Your task to perform on an android device: Do I have any events today? Image 0: 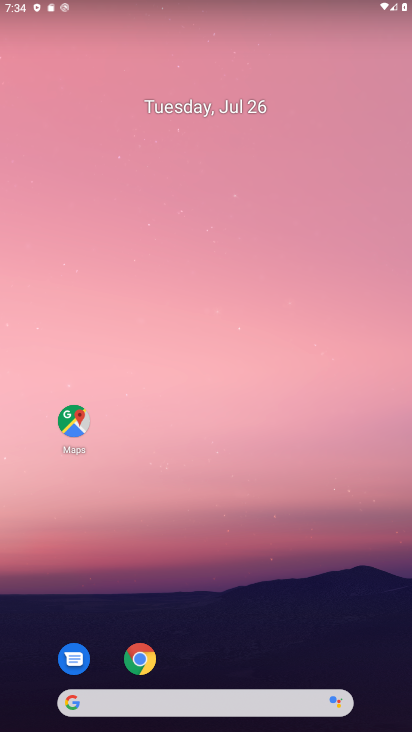
Step 0: drag from (217, 674) to (114, 71)
Your task to perform on an android device: Do I have any events today? Image 1: 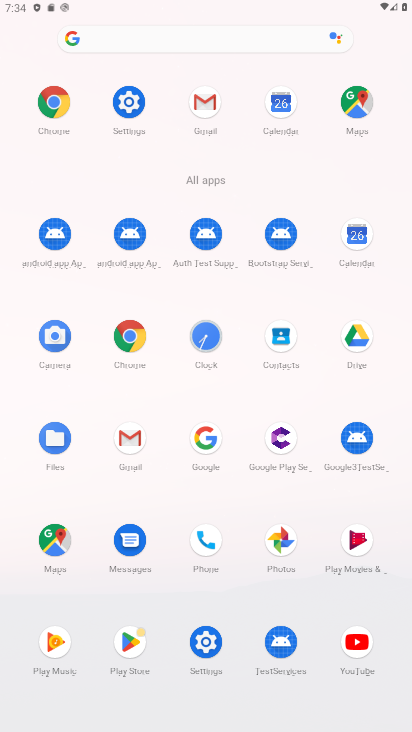
Step 1: click (351, 239)
Your task to perform on an android device: Do I have any events today? Image 2: 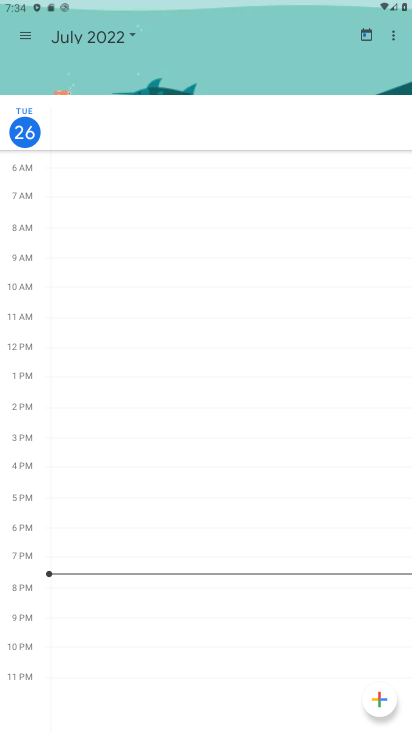
Step 2: click (25, 125)
Your task to perform on an android device: Do I have any events today? Image 3: 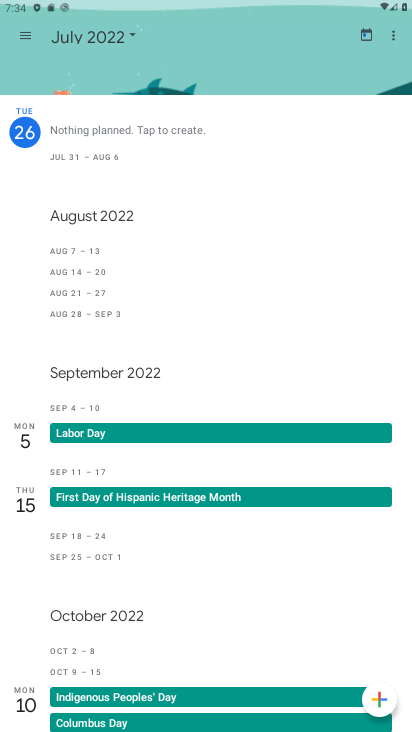
Step 3: task complete